Your task to perform on an android device: turn off translation in the chrome app Image 0: 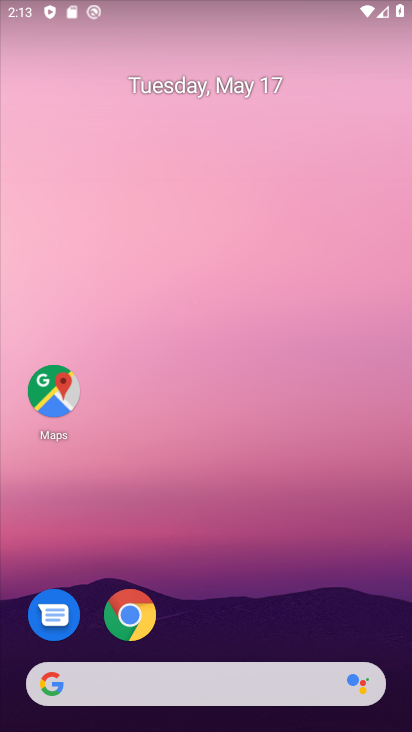
Step 0: click (120, 607)
Your task to perform on an android device: turn off translation in the chrome app Image 1: 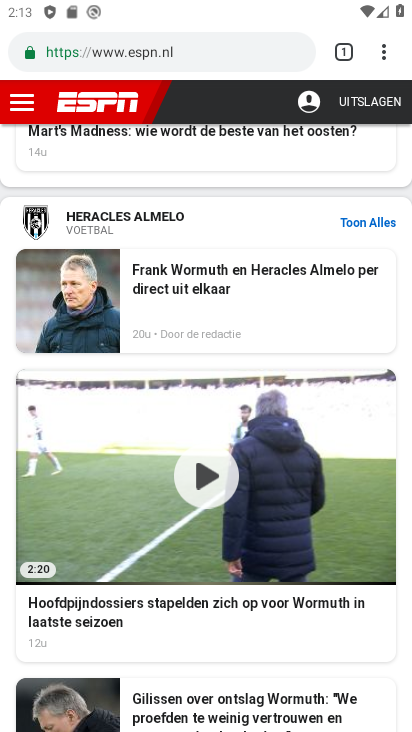
Step 1: click (383, 49)
Your task to perform on an android device: turn off translation in the chrome app Image 2: 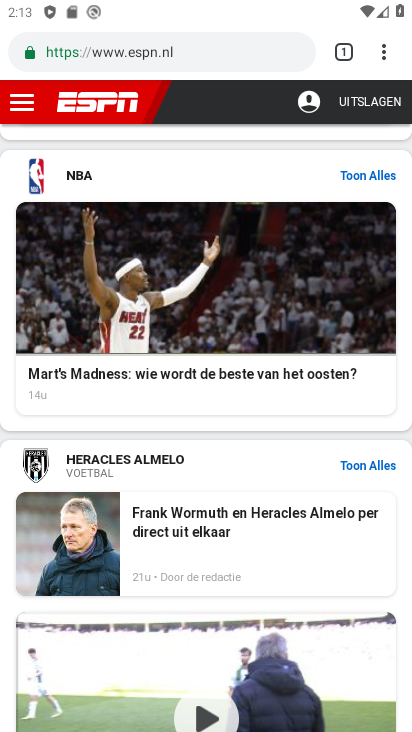
Step 2: click (382, 50)
Your task to perform on an android device: turn off translation in the chrome app Image 3: 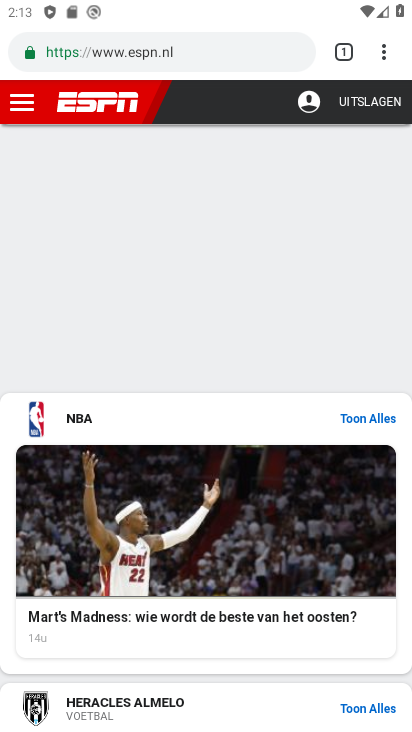
Step 3: click (377, 54)
Your task to perform on an android device: turn off translation in the chrome app Image 4: 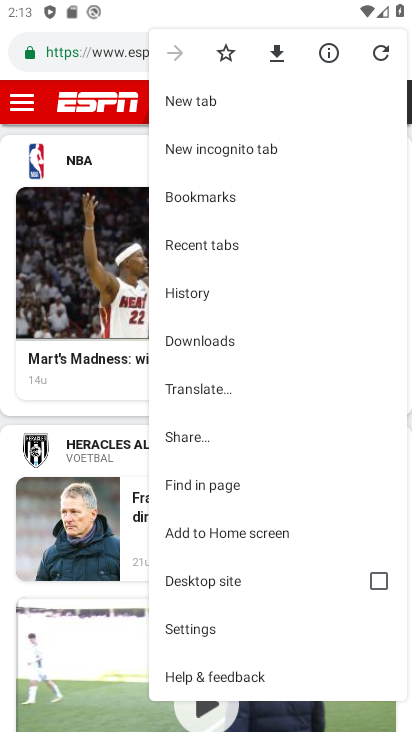
Step 4: click (225, 622)
Your task to perform on an android device: turn off translation in the chrome app Image 5: 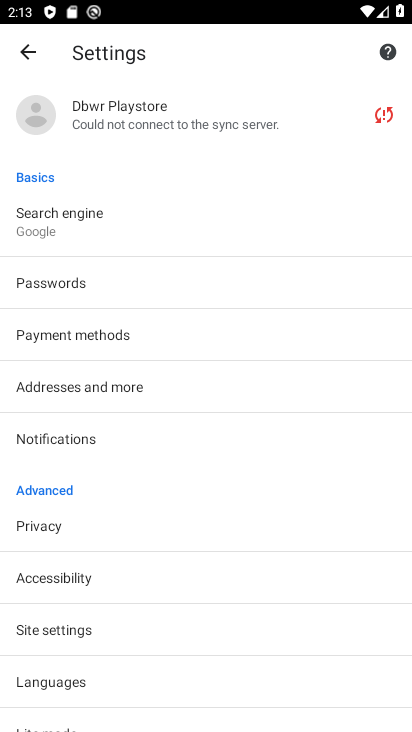
Step 5: click (102, 625)
Your task to perform on an android device: turn off translation in the chrome app Image 6: 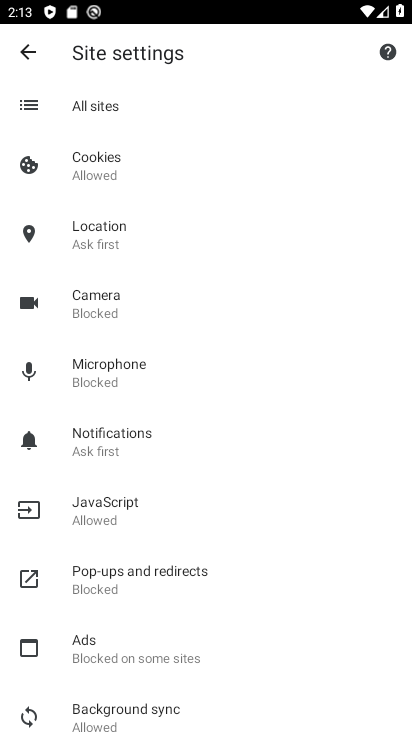
Step 6: click (42, 46)
Your task to perform on an android device: turn off translation in the chrome app Image 7: 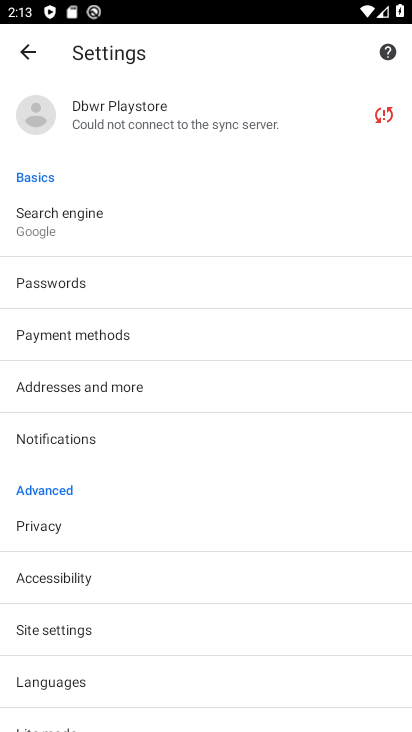
Step 7: click (92, 683)
Your task to perform on an android device: turn off translation in the chrome app Image 8: 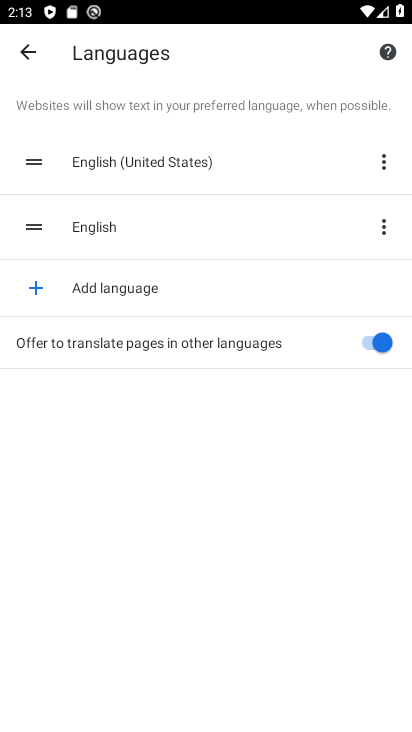
Step 8: click (368, 340)
Your task to perform on an android device: turn off translation in the chrome app Image 9: 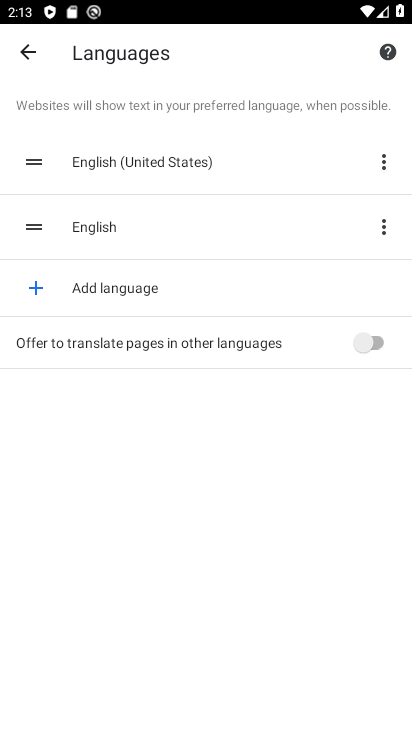
Step 9: task complete